Your task to perform on an android device: allow notifications from all sites in the chrome app Image 0: 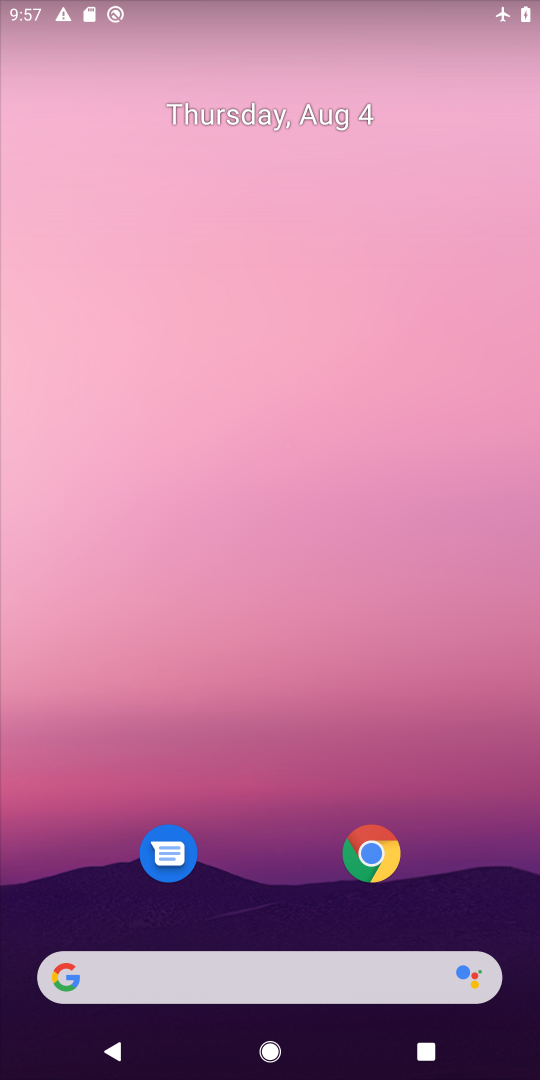
Step 0: drag from (256, 806) to (354, 181)
Your task to perform on an android device: allow notifications from all sites in the chrome app Image 1: 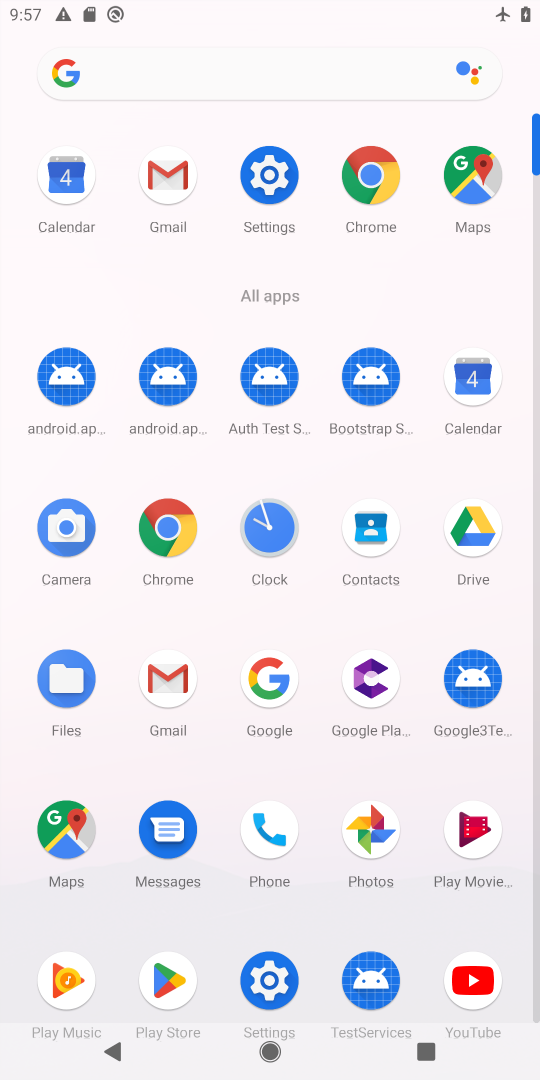
Step 1: click (168, 572)
Your task to perform on an android device: allow notifications from all sites in the chrome app Image 2: 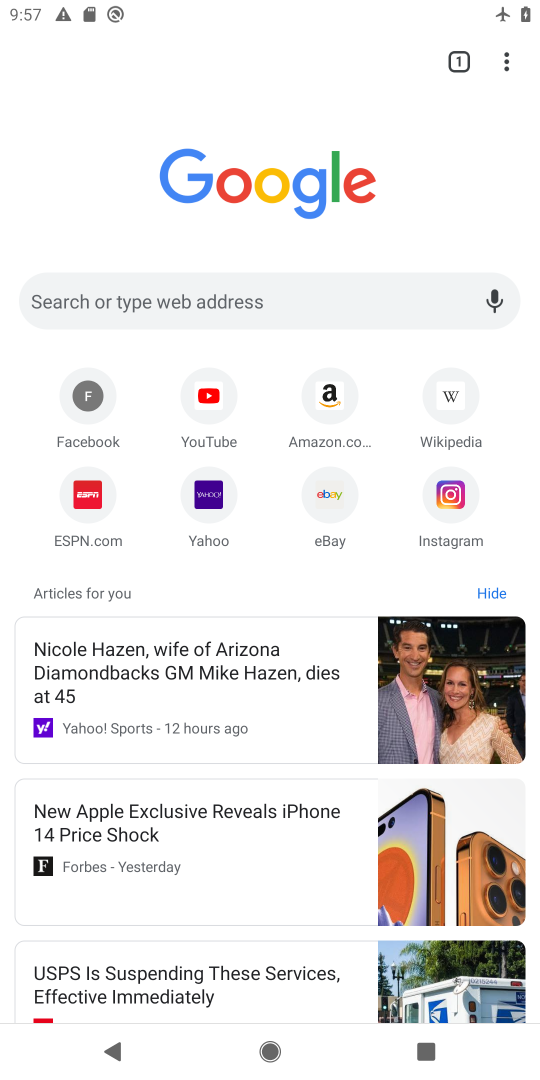
Step 2: click (496, 54)
Your task to perform on an android device: allow notifications from all sites in the chrome app Image 3: 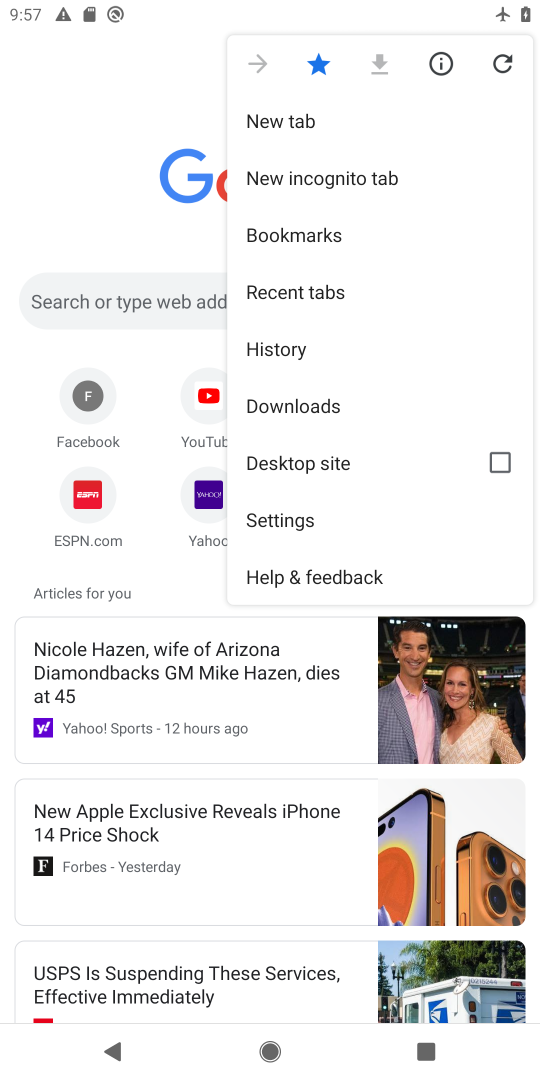
Step 3: click (288, 518)
Your task to perform on an android device: allow notifications from all sites in the chrome app Image 4: 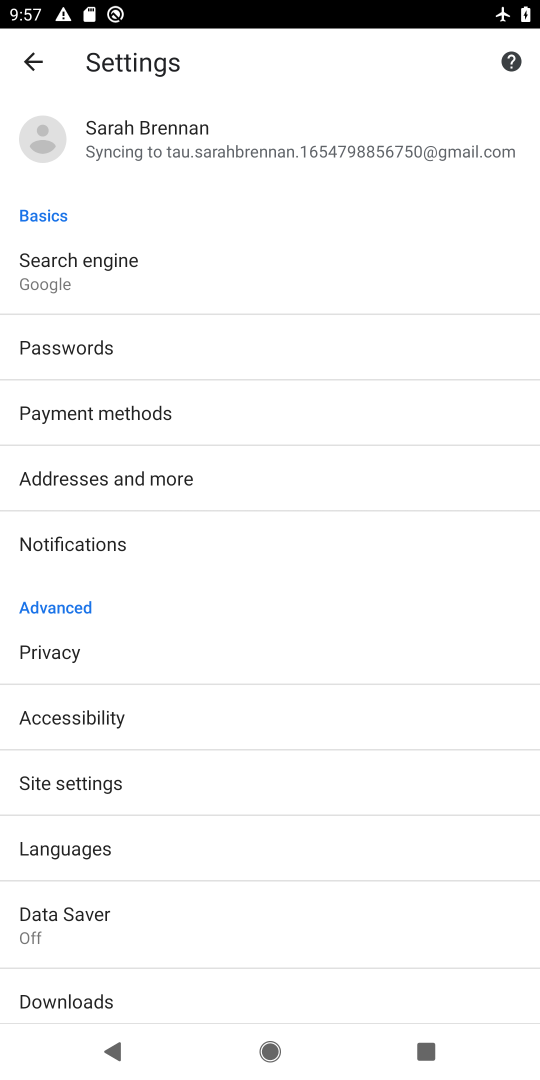
Step 4: click (123, 544)
Your task to perform on an android device: allow notifications from all sites in the chrome app Image 5: 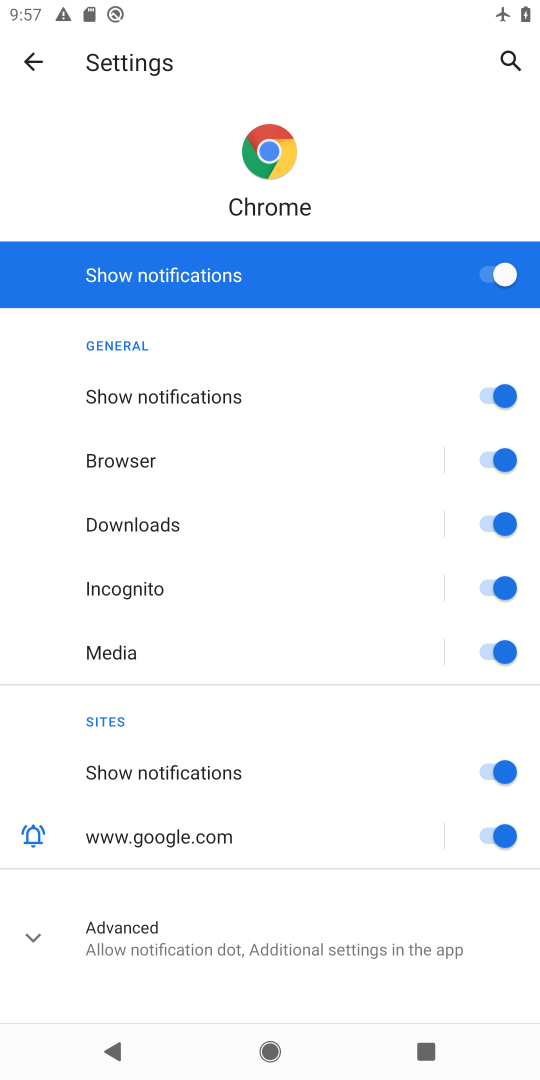
Step 5: task complete